Your task to perform on an android device: open app "Facebook" (install if not already installed), go to login, and select forgot password Image 0: 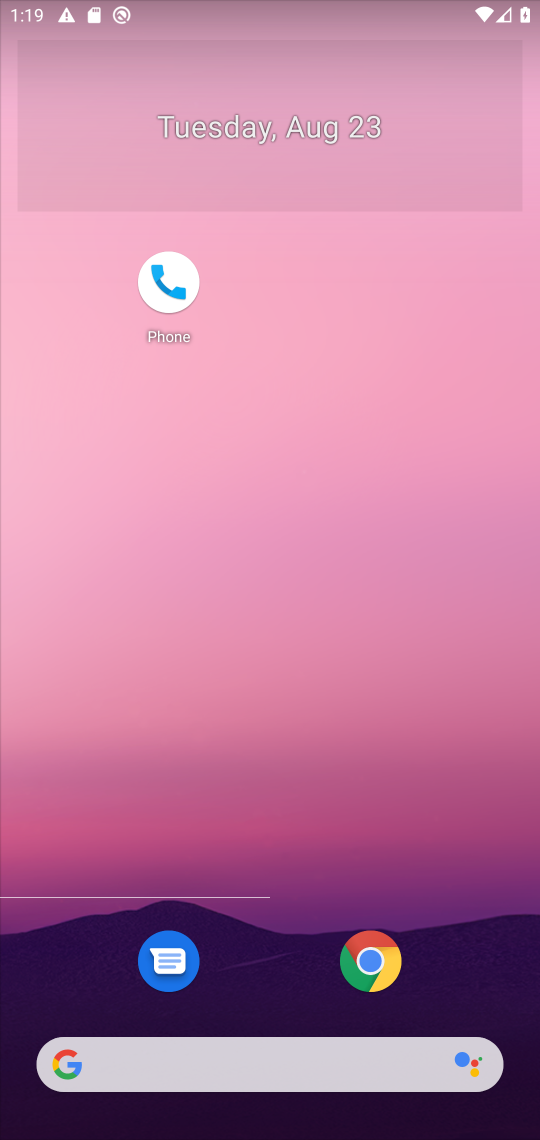
Step 0: drag from (253, 982) to (263, 148)
Your task to perform on an android device: open app "Facebook" (install if not already installed), go to login, and select forgot password Image 1: 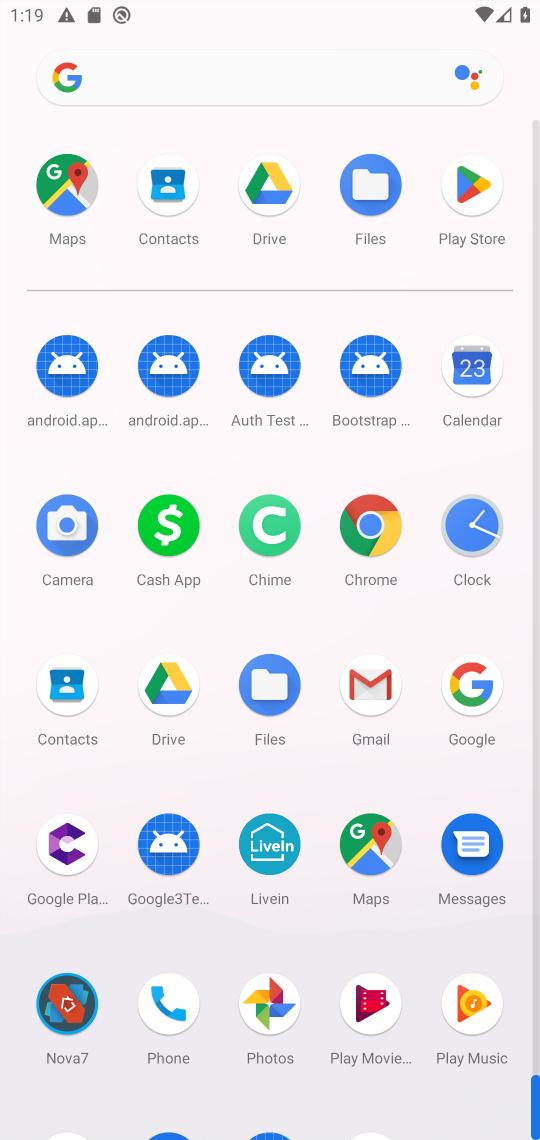
Step 1: click (457, 209)
Your task to perform on an android device: open app "Facebook" (install if not already installed), go to login, and select forgot password Image 2: 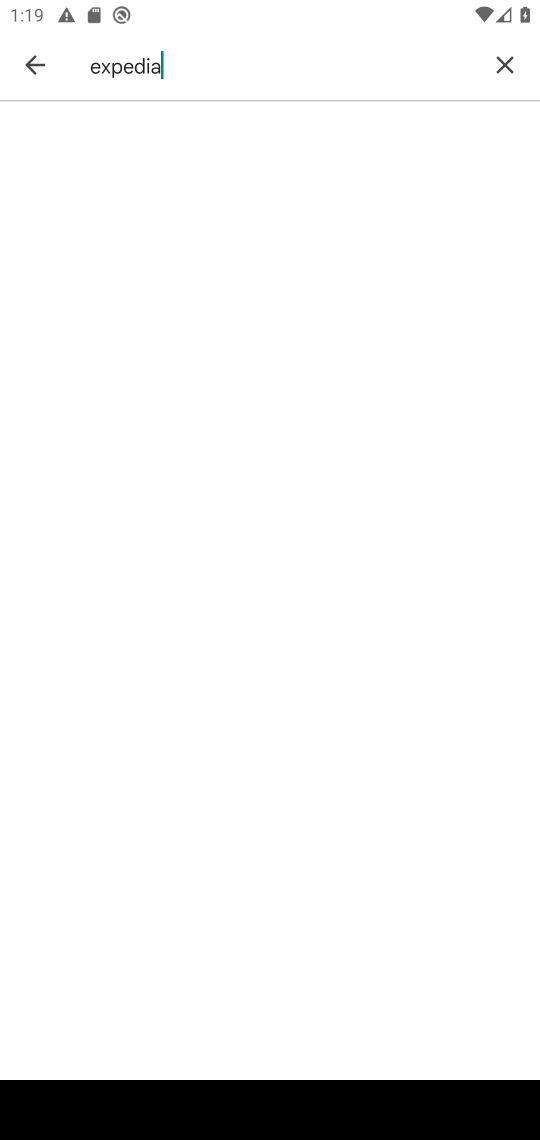
Step 2: click (492, 87)
Your task to perform on an android device: open app "Facebook" (install if not already installed), go to login, and select forgot password Image 3: 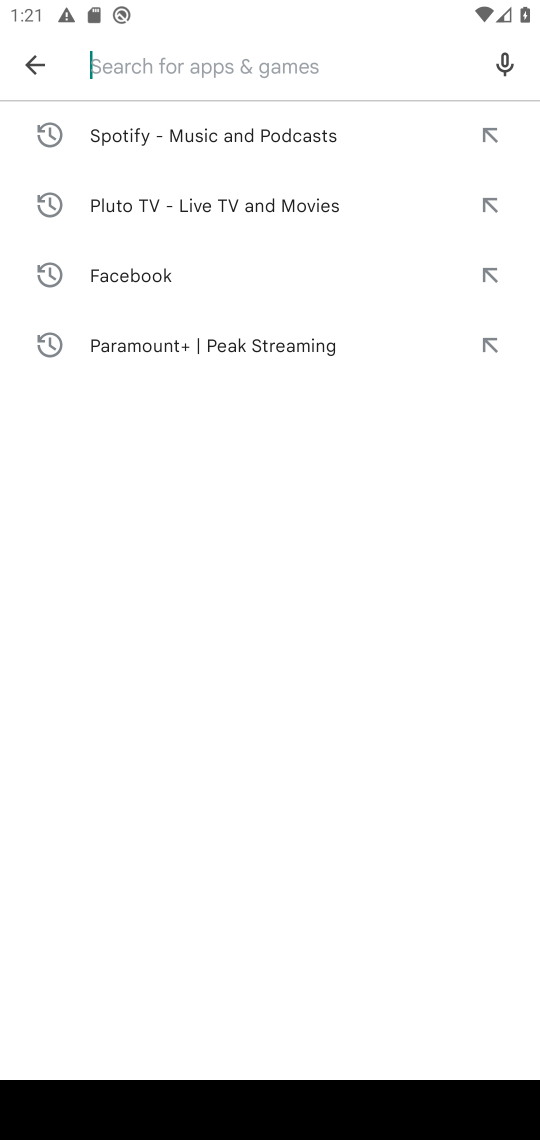
Step 3: type "facebook"
Your task to perform on an android device: open app "Facebook" (install if not already installed), go to login, and select forgot password Image 4: 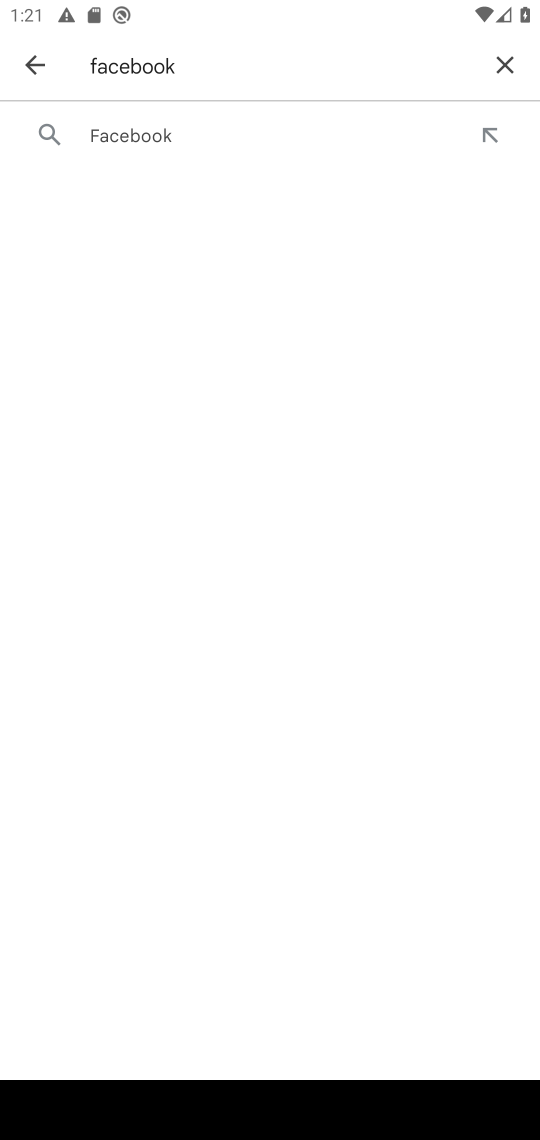
Step 4: click (299, 137)
Your task to perform on an android device: open app "Facebook" (install if not already installed), go to login, and select forgot password Image 5: 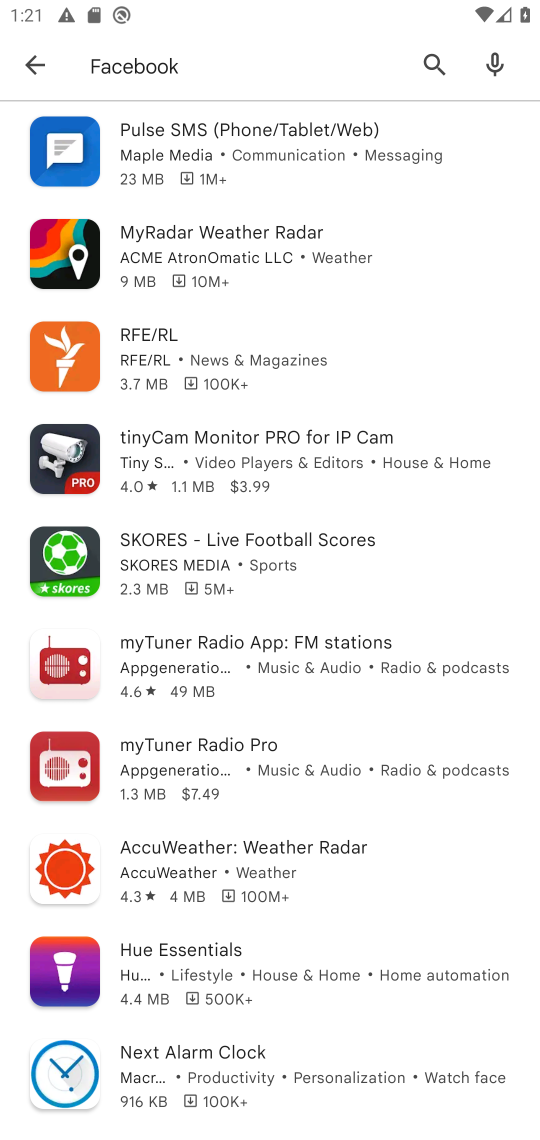
Step 5: task complete